Your task to perform on an android device: turn off wifi Image 0: 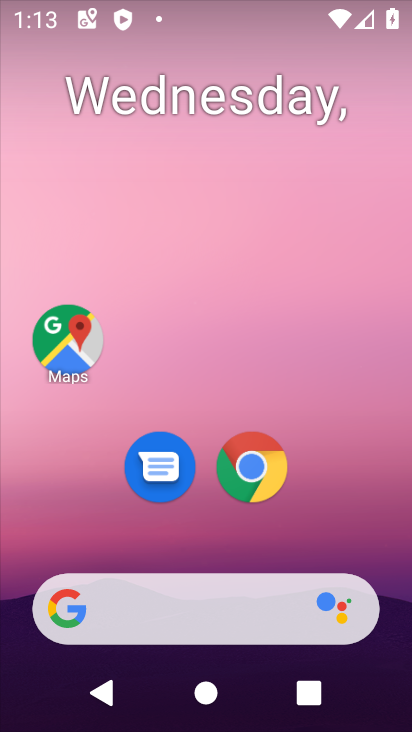
Step 0: drag from (214, 545) to (214, 138)
Your task to perform on an android device: turn off wifi Image 1: 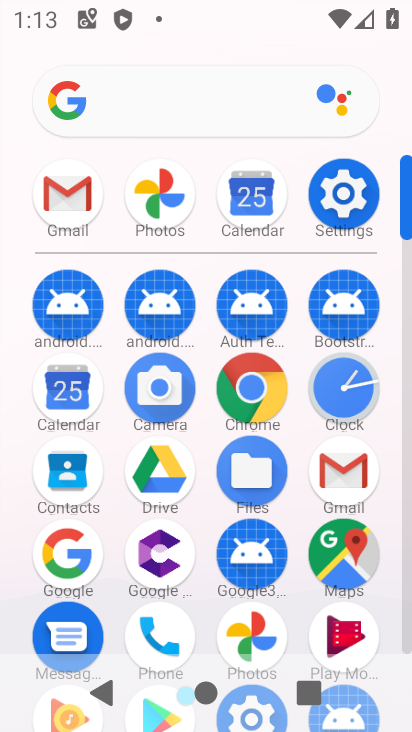
Step 1: click (353, 197)
Your task to perform on an android device: turn off wifi Image 2: 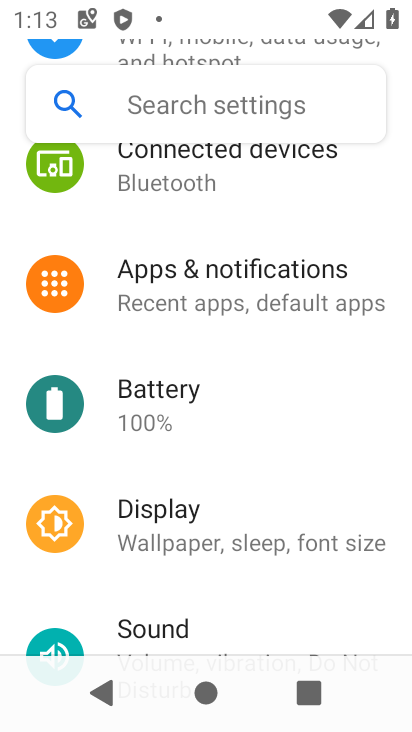
Step 2: drag from (234, 204) to (271, 659)
Your task to perform on an android device: turn off wifi Image 3: 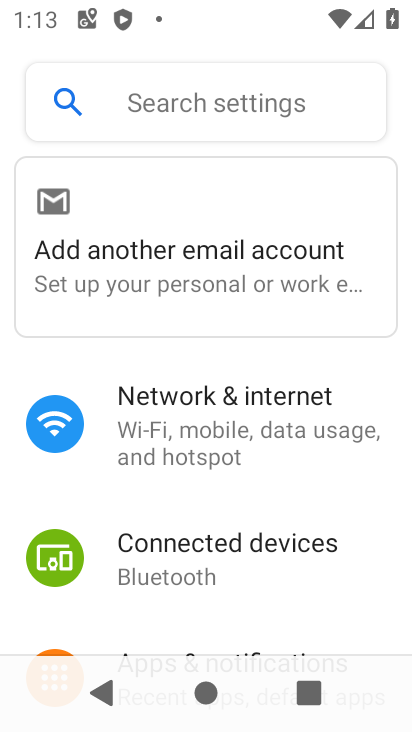
Step 3: click (244, 425)
Your task to perform on an android device: turn off wifi Image 4: 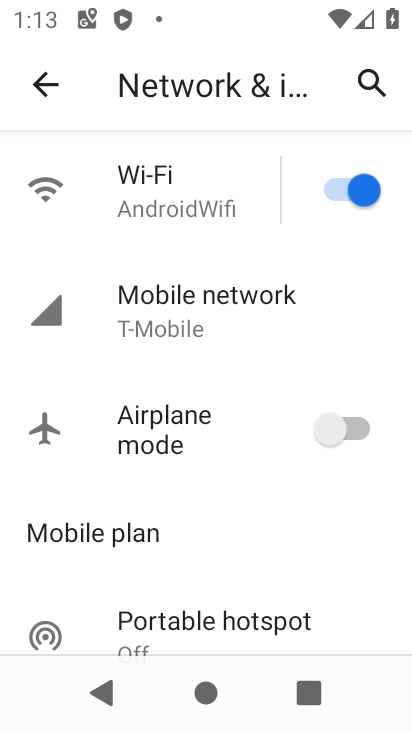
Step 4: click (360, 198)
Your task to perform on an android device: turn off wifi Image 5: 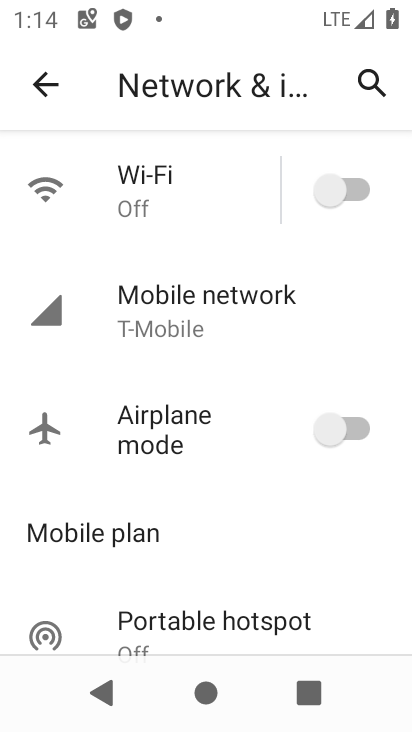
Step 5: task complete